Your task to perform on an android device: Clear the cart on walmart.com. Image 0: 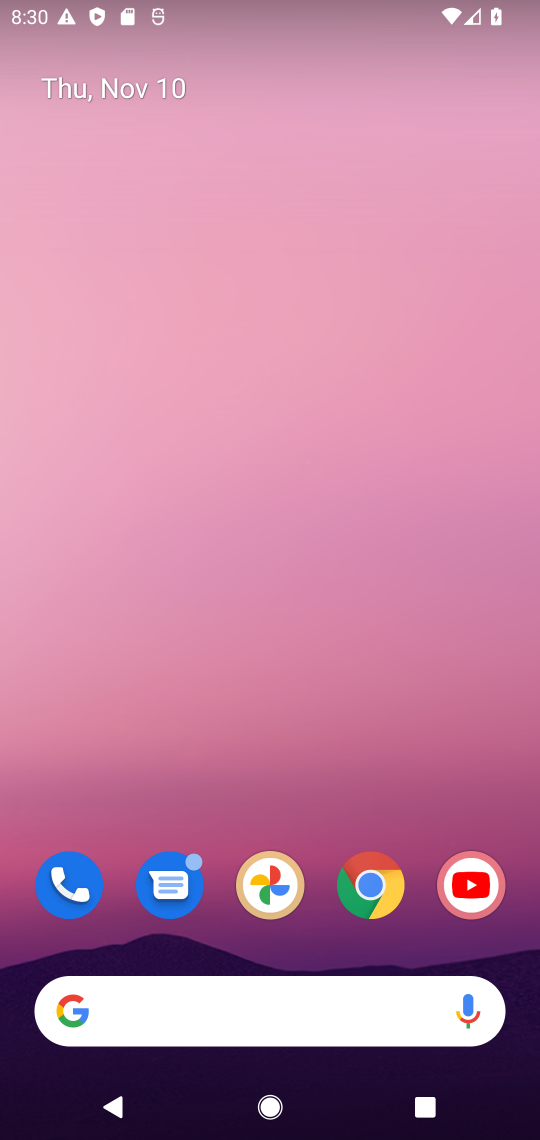
Step 0: click (373, 864)
Your task to perform on an android device: Clear the cart on walmart.com. Image 1: 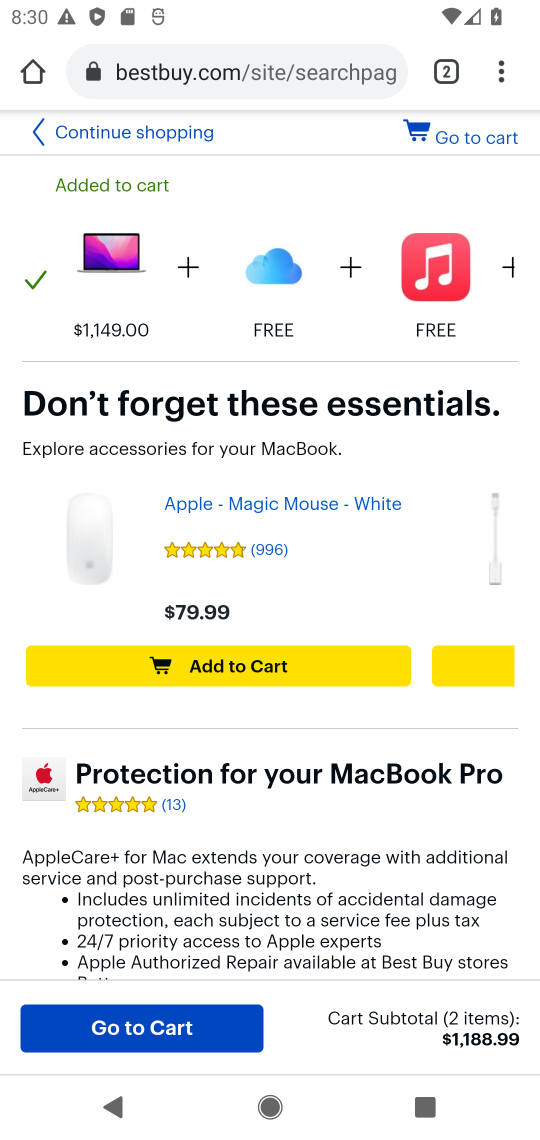
Step 1: click (445, 71)
Your task to perform on an android device: Clear the cart on walmart.com. Image 2: 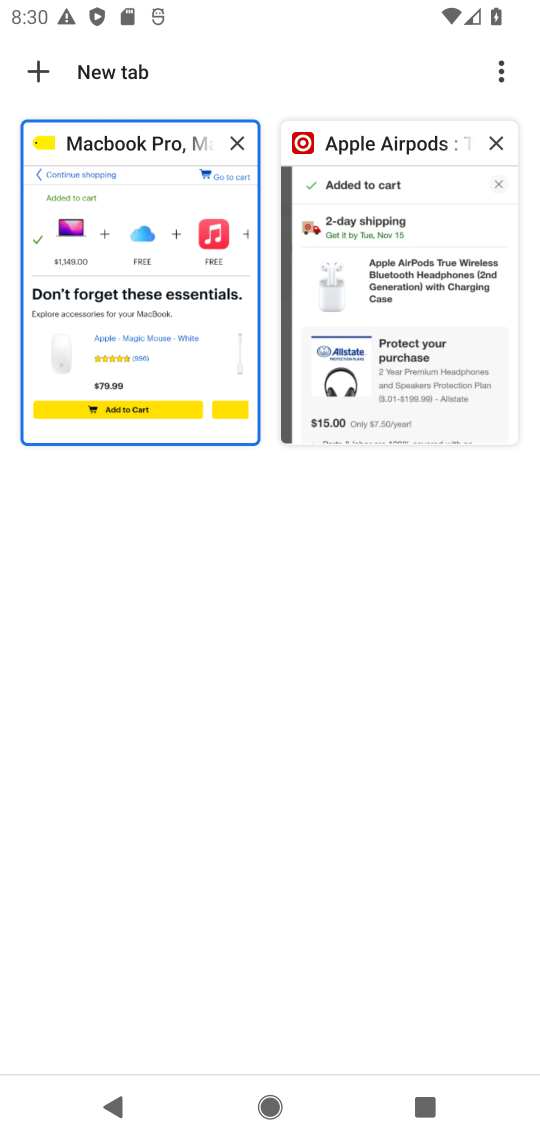
Step 2: click (37, 68)
Your task to perform on an android device: Clear the cart on walmart.com. Image 3: 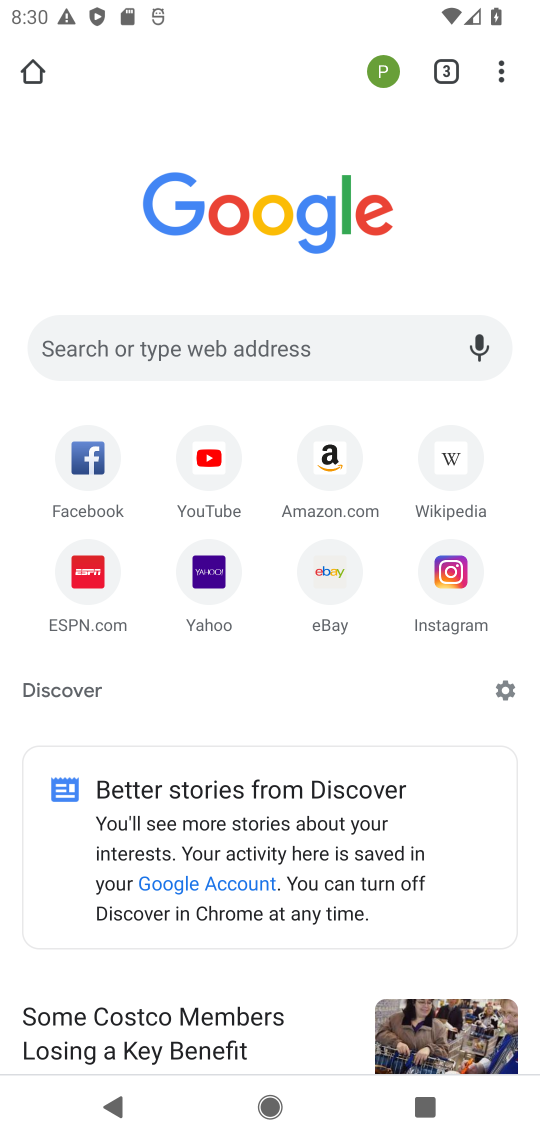
Step 3: click (250, 353)
Your task to perform on an android device: Clear the cart on walmart.com. Image 4: 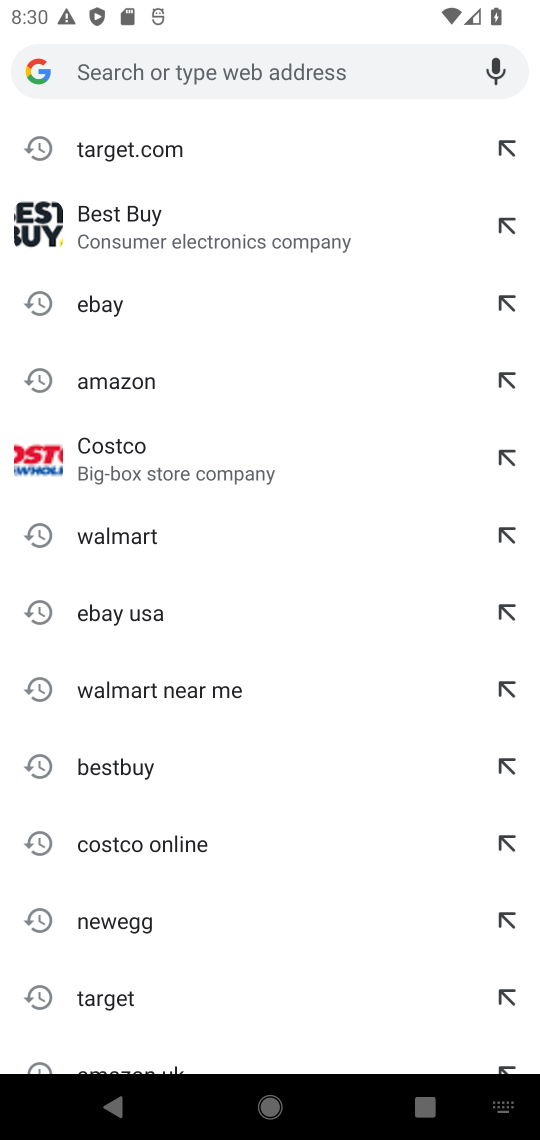
Step 4: click (107, 529)
Your task to perform on an android device: Clear the cart on walmart.com. Image 5: 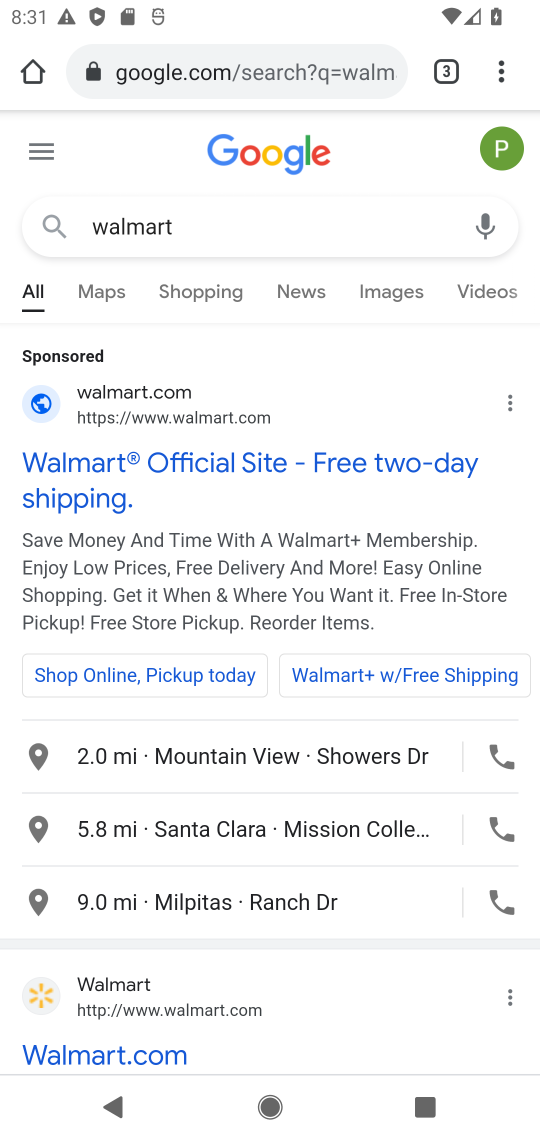
Step 5: click (91, 1047)
Your task to perform on an android device: Clear the cart on walmart.com. Image 6: 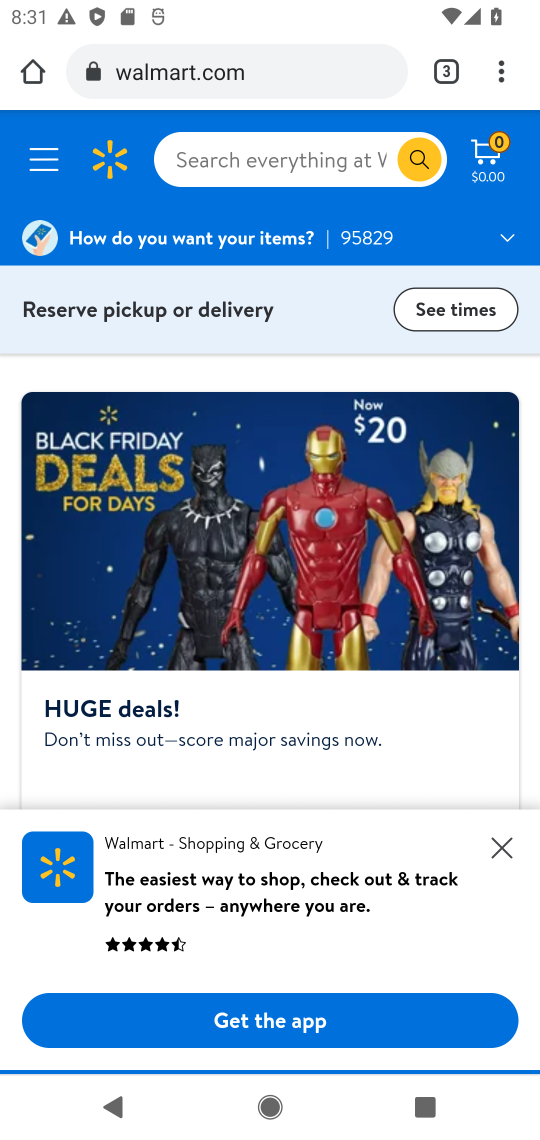
Step 6: task complete